Your task to perform on an android device: Open settings on Google Maps Image 0: 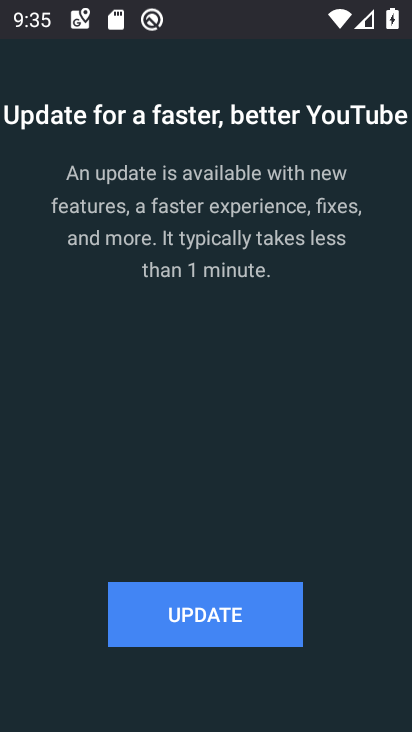
Step 0: press home button
Your task to perform on an android device: Open settings on Google Maps Image 1: 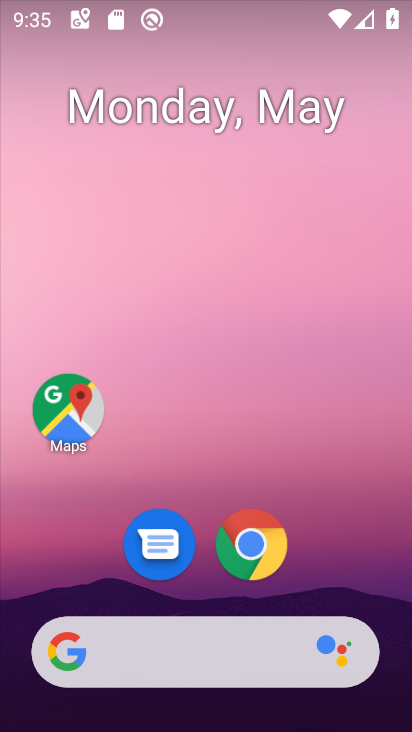
Step 1: drag from (338, 591) to (320, 220)
Your task to perform on an android device: Open settings on Google Maps Image 2: 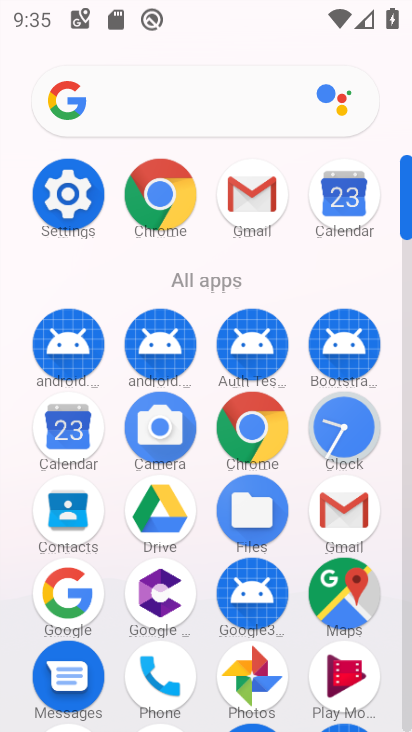
Step 2: click (339, 585)
Your task to perform on an android device: Open settings on Google Maps Image 3: 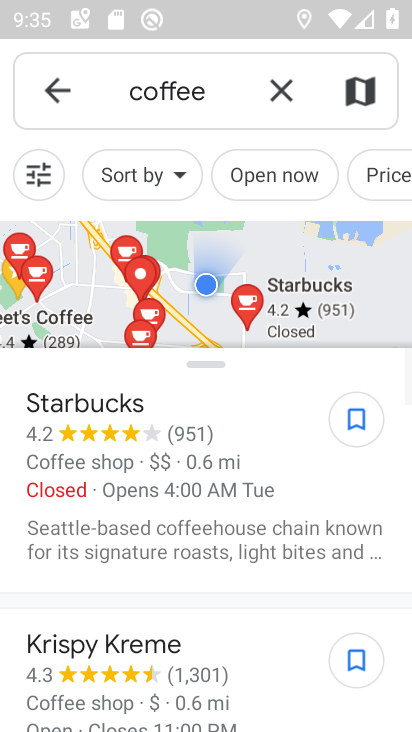
Step 3: click (48, 100)
Your task to perform on an android device: Open settings on Google Maps Image 4: 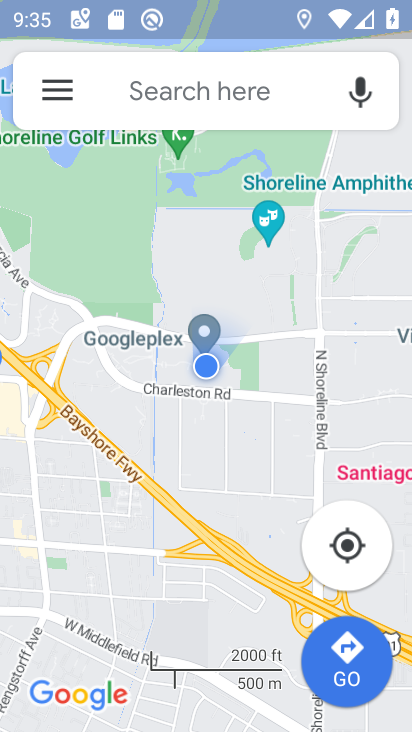
Step 4: click (49, 106)
Your task to perform on an android device: Open settings on Google Maps Image 5: 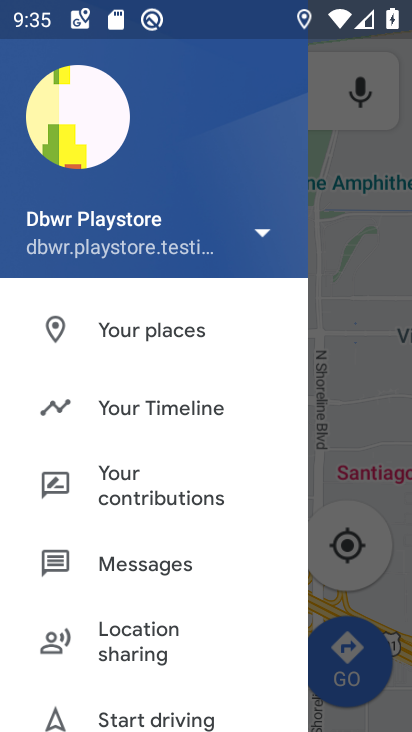
Step 5: click (156, 423)
Your task to perform on an android device: Open settings on Google Maps Image 6: 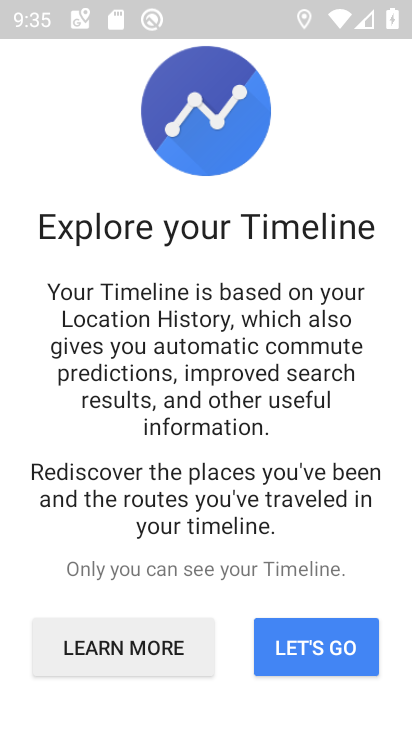
Step 6: drag from (142, 691) to (166, 431)
Your task to perform on an android device: Open settings on Google Maps Image 7: 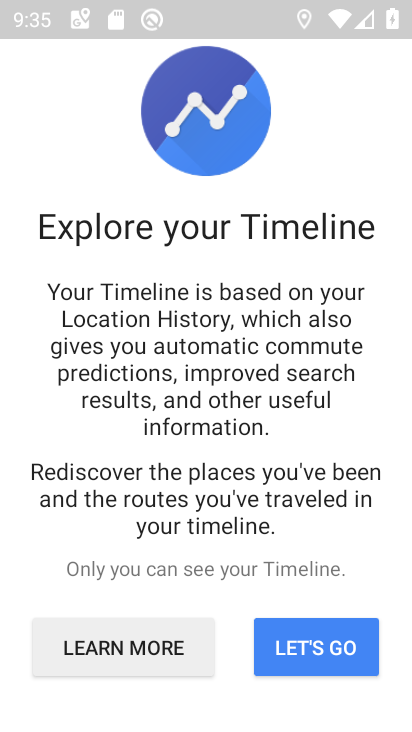
Step 7: click (289, 647)
Your task to perform on an android device: Open settings on Google Maps Image 8: 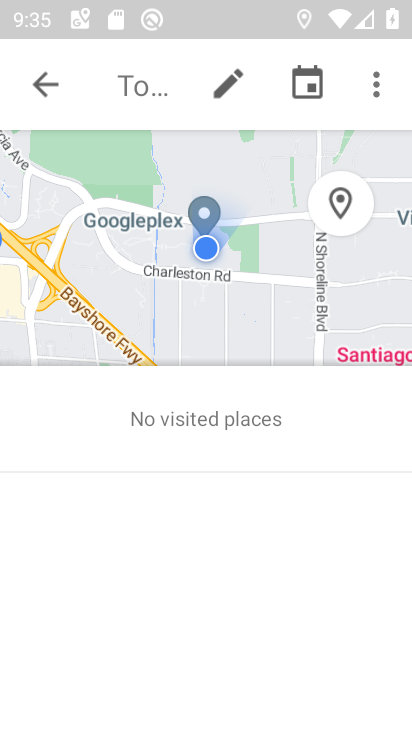
Step 8: task complete